Your task to perform on an android device: empty trash in google photos Image 0: 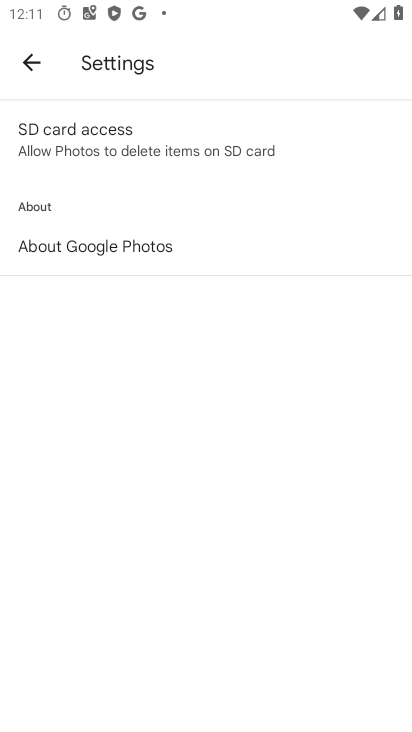
Step 0: press home button
Your task to perform on an android device: empty trash in google photos Image 1: 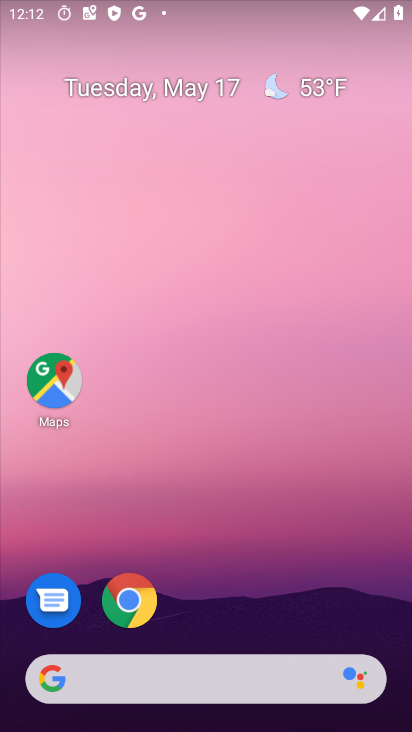
Step 1: drag from (269, 637) to (211, 73)
Your task to perform on an android device: empty trash in google photos Image 2: 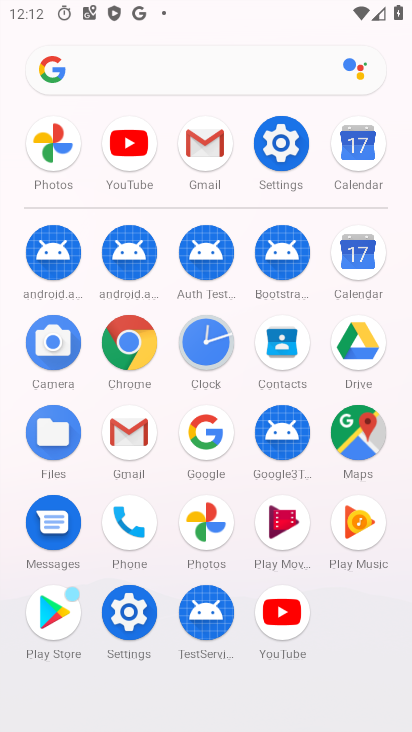
Step 2: click (213, 530)
Your task to perform on an android device: empty trash in google photos Image 3: 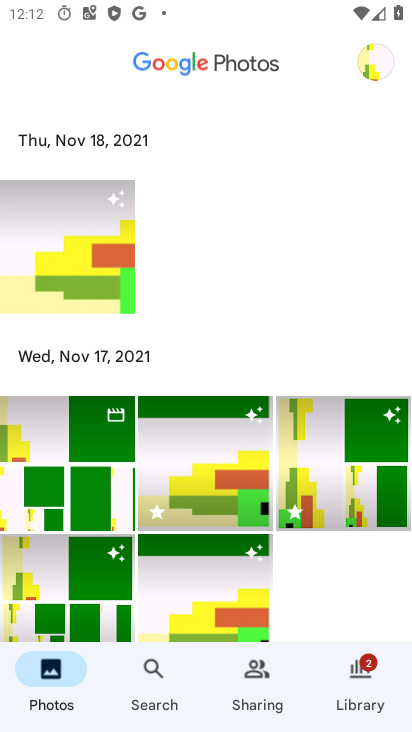
Step 3: click (378, 691)
Your task to perform on an android device: empty trash in google photos Image 4: 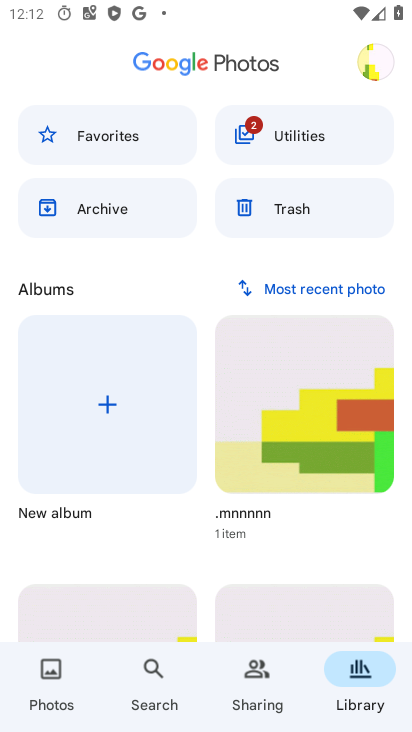
Step 4: click (309, 206)
Your task to perform on an android device: empty trash in google photos Image 5: 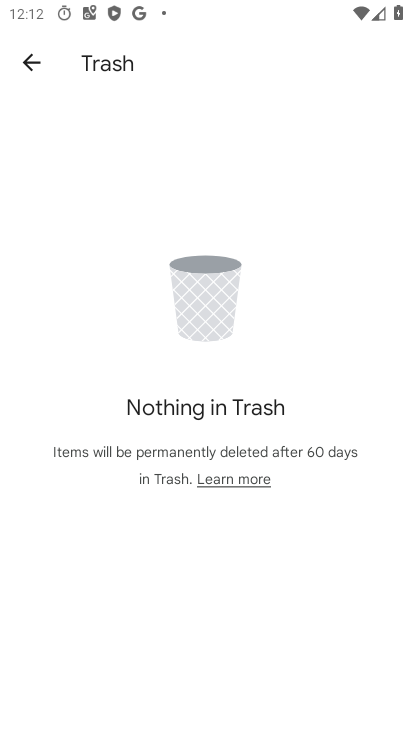
Step 5: task complete